Your task to perform on an android device: turn off airplane mode Image 0: 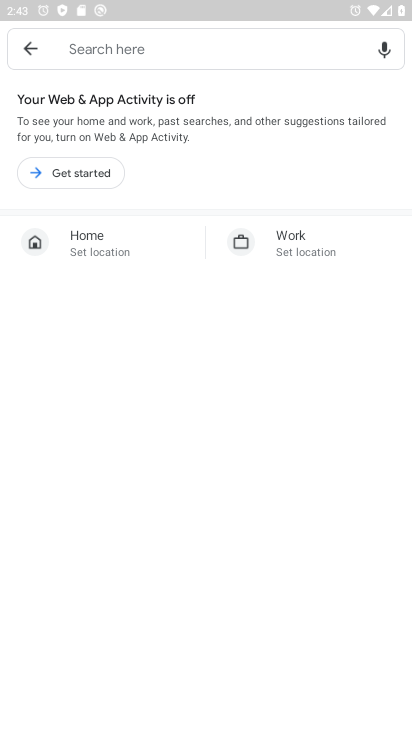
Step 0: press home button
Your task to perform on an android device: turn off airplane mode Image 1: 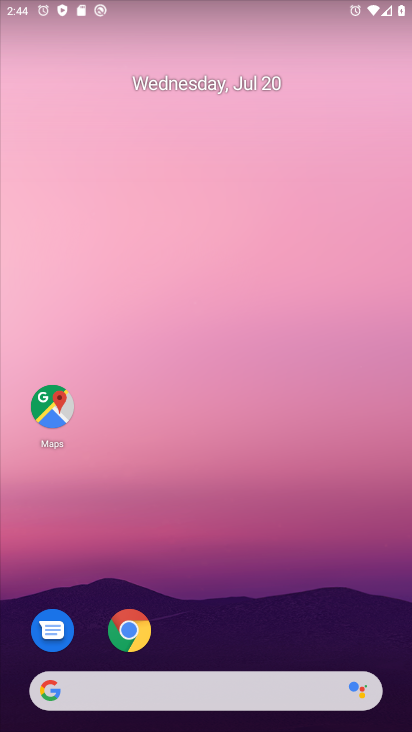
Step 1: task complete